Your task to perform on an android device: Go to internet settings Image 0: 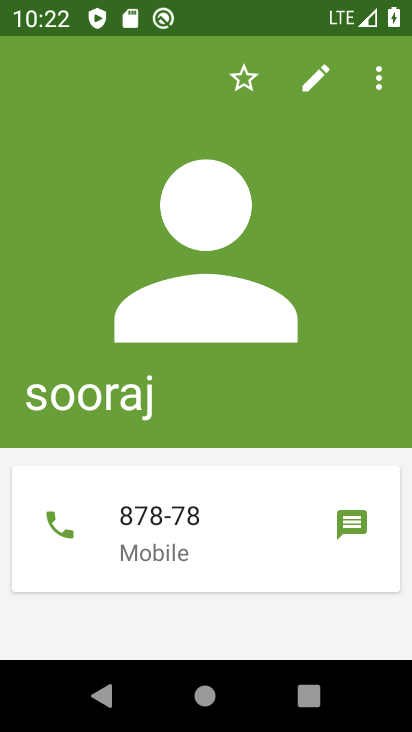
Step 0: press home button
Your task to perform on an android device: Go to internet settings Image 1: 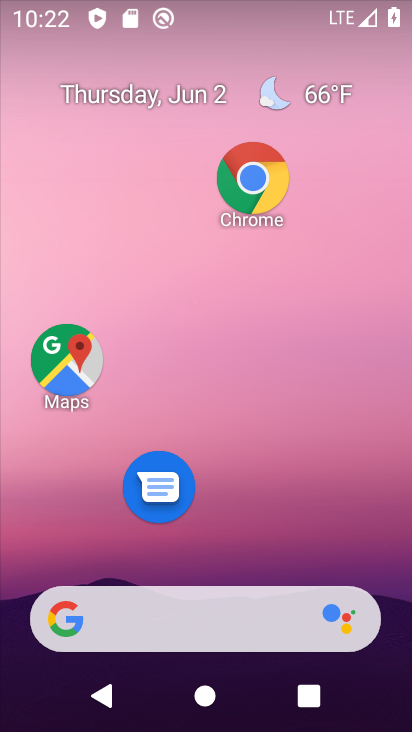
Step 1: drag from (252, 648) to (249, 99)
Your task to perform on an android device: Go to internet settings Image 2: 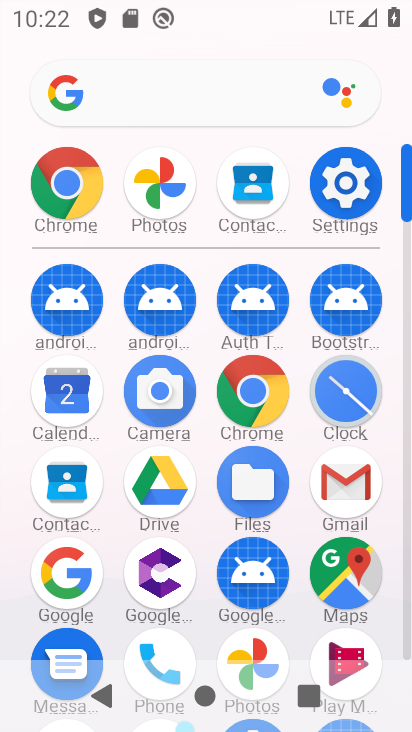
Step 2: click (350, 181)
Your task to perform on an android device: Go to internet settings Image 3: 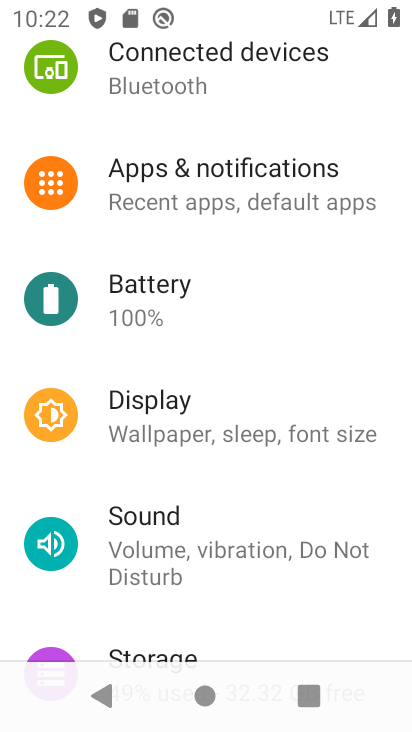
Step 3: drag from (273, 179) to (303, 524)
Your task to perform on an android device: Go to internet settings Image 4: 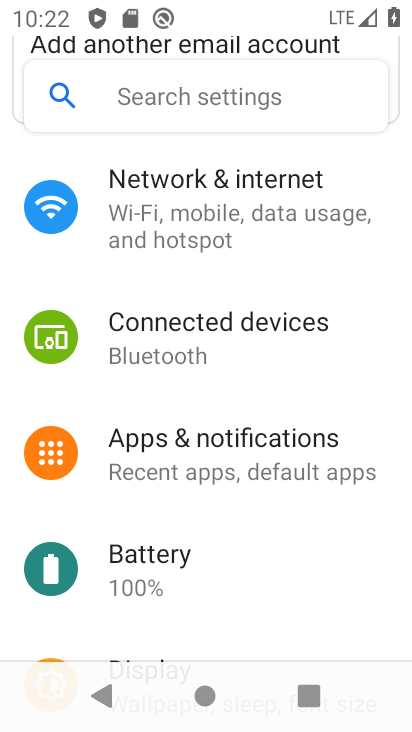
Step 4: click (170, 227)
Your task to perform on an android device: Go to internet settings Image 5: 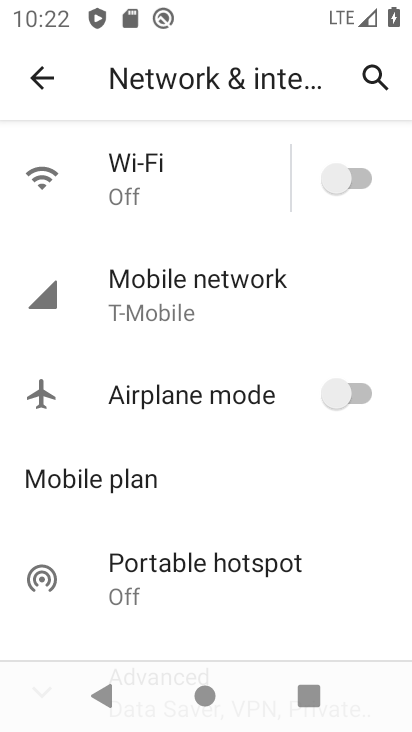
Step 5: task complete